Your task to perform on an android device: turn pop-ups off in chrome Image 0: 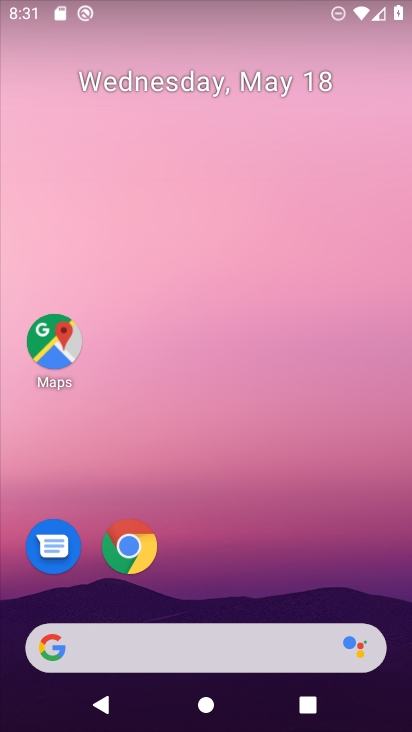
Step 0: drag from (239, 668) to (352, 156)
Your task to perform on an android device: turn pop-ups off in chrome Image 1: 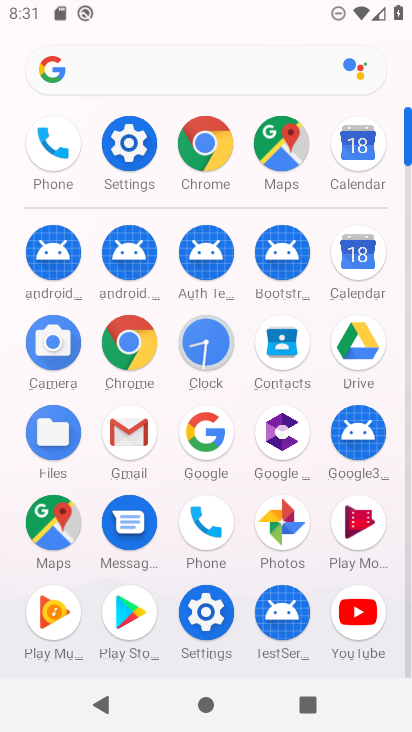
Step 1: click (130, 344)
Your task to perform on an android device: turn pop-ups off in chrome Image 2: 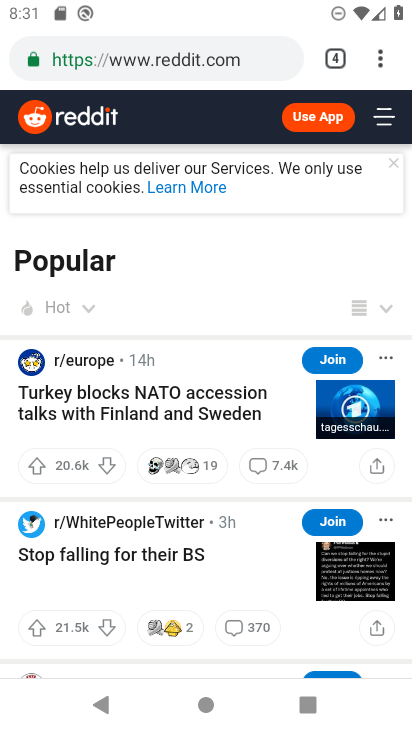
Step 2: click (377, 71)
Your task to perform on an android device: turn pop-ups off in chrome Image 3: 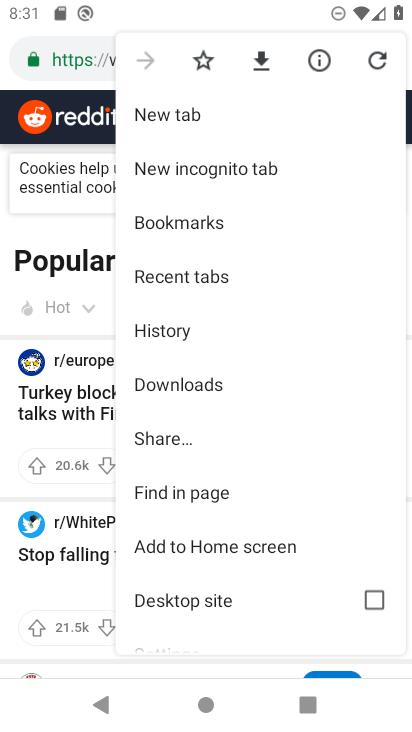
Step 3: drag from (172, 589) to (229, 426)
Your task to perform on an android device: turn pop-ups off in chrome Image 4: 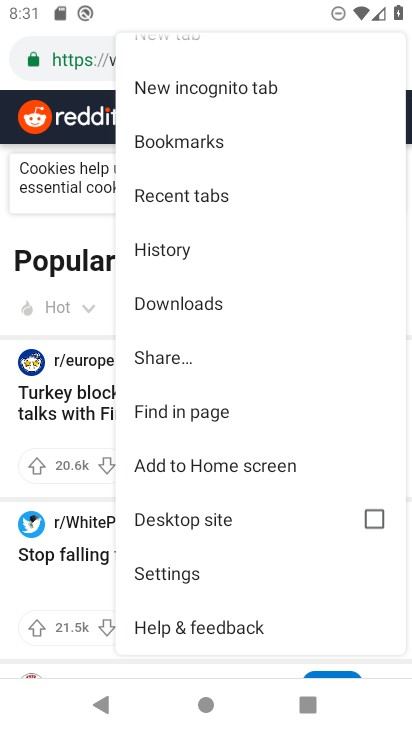
Step 4: click (158, 577)
Your task to perform on an android device: turn pop-ups off in chrome Image 5: 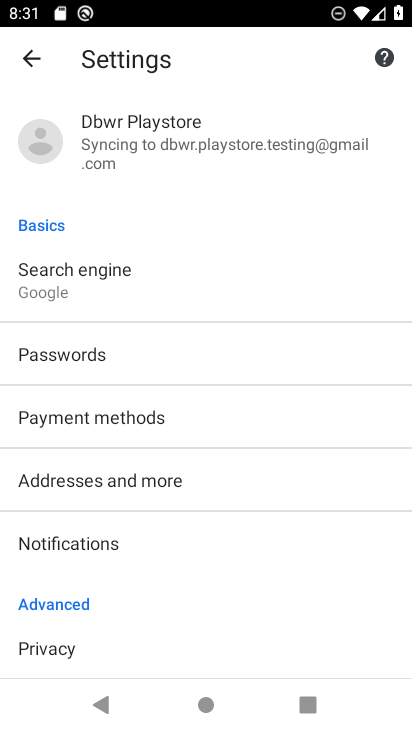
Step 5: drag from (114, 586) to (184, 424)
Your task to perform on an android device: turn pop-ups off in chrome Image 6: 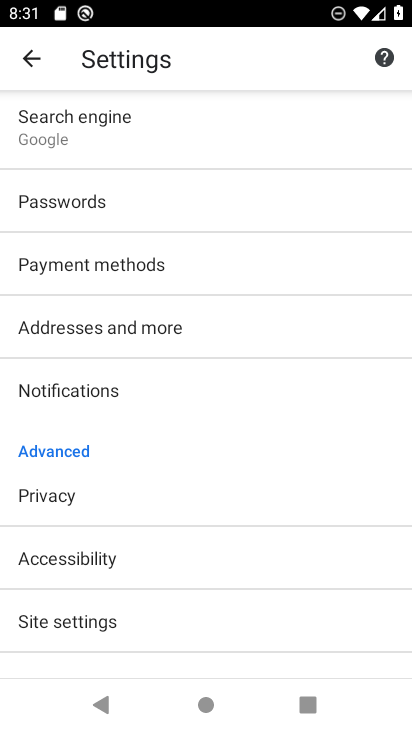
Step 6: click (100, 629)
Your task to perform on an android device: turn pop-ups off in chrome Image 7: 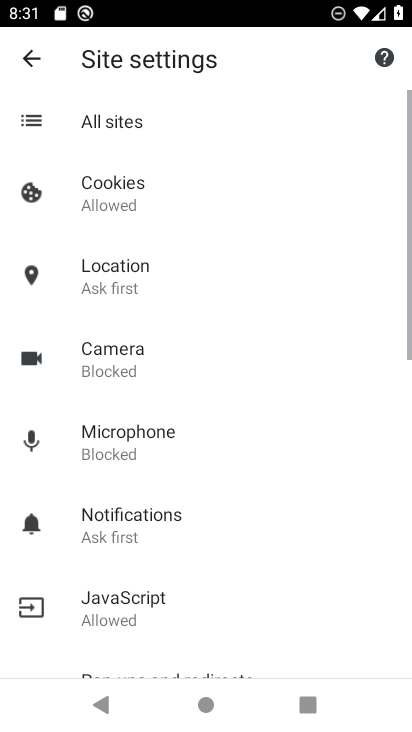
Step 7: drag from (87, 635) to (171, 514)
Your task to perform on an android device: turn pop-ups off in chrome Image 8: 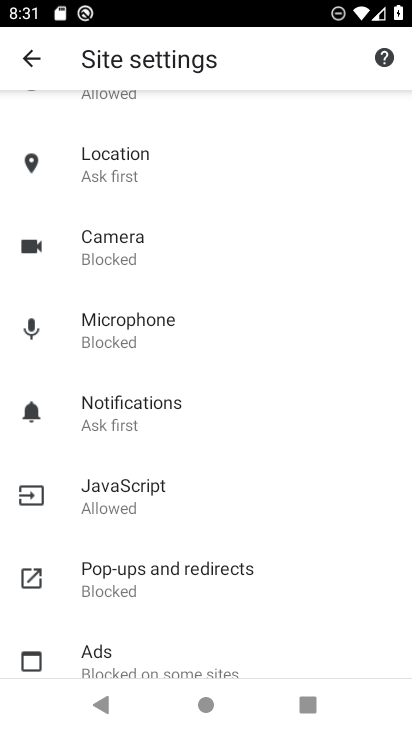
Step 8: click (135, 582)
Your task to perform on an android device: turn pop-ups off in chrome Image 9: 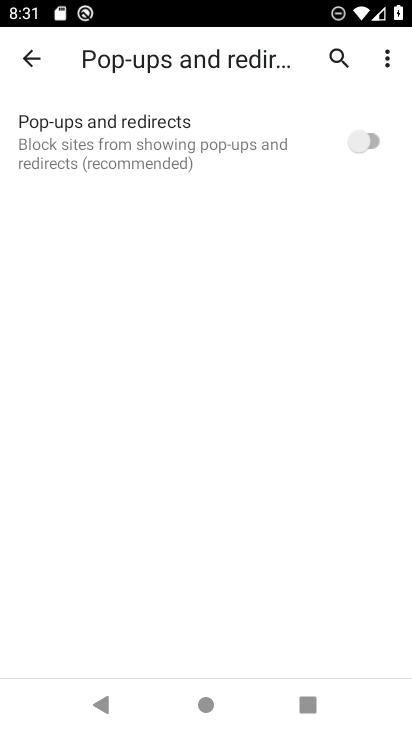
Step 9: click (361, 131)
Your task to perform on an android device: turn pop-ups off in chrome Image 10: 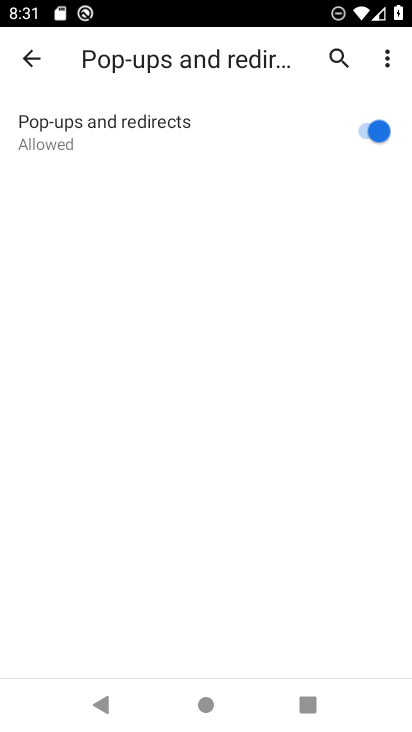
Step 10: click (359, 133)
Your task to perform on an android device: turn pop-ups off in chrome Image 11: 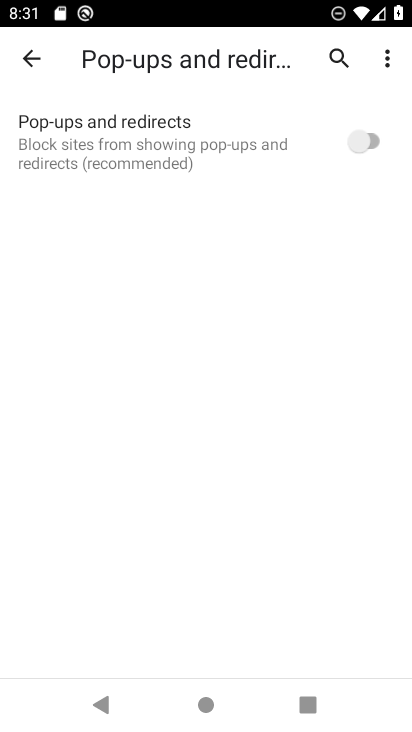
Step 11: task complete